Your task to perform on an android device: check android version Image 0: 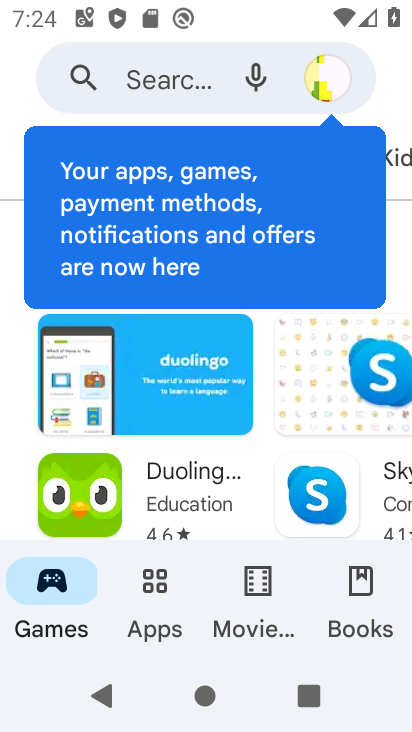
Step 0: press home button
Your task to perform on an android device: check android version Image 1: 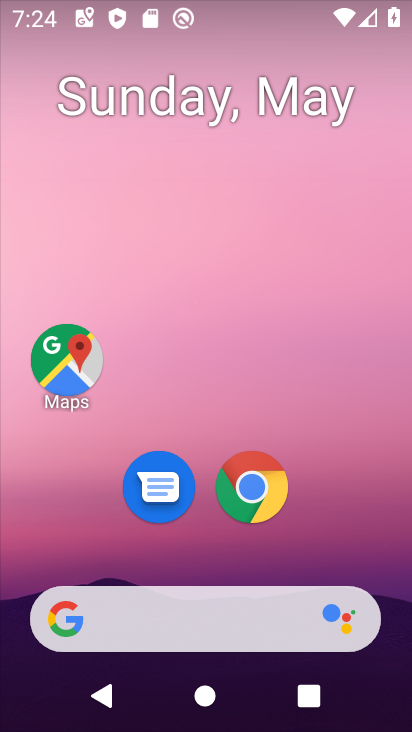
Step 1: drag from (384, 569) to (364, 190)
Your task to perform on an android device: check android version Image 2: 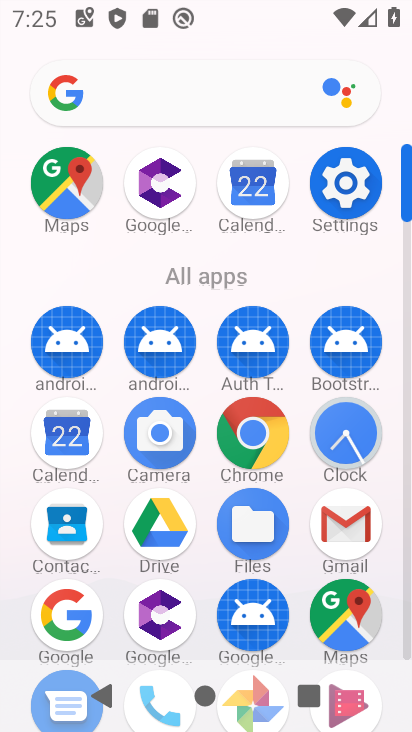
Step 2: click (355, 206)
Your task to perform on an android device: check android version Image 3: 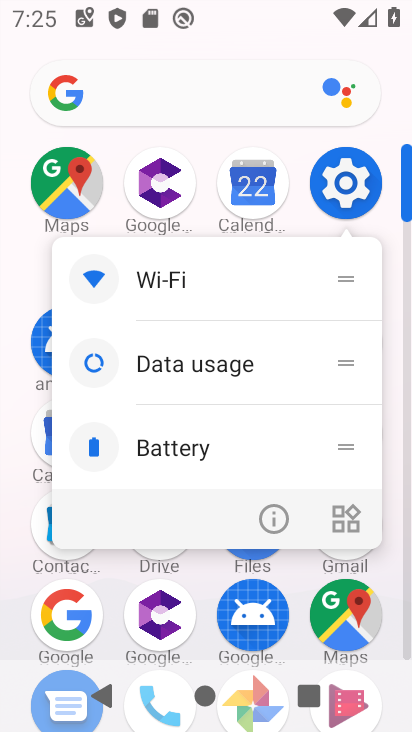
Step 3: click (356, 205)
Your task to perform on an android device: check android version Image 4: 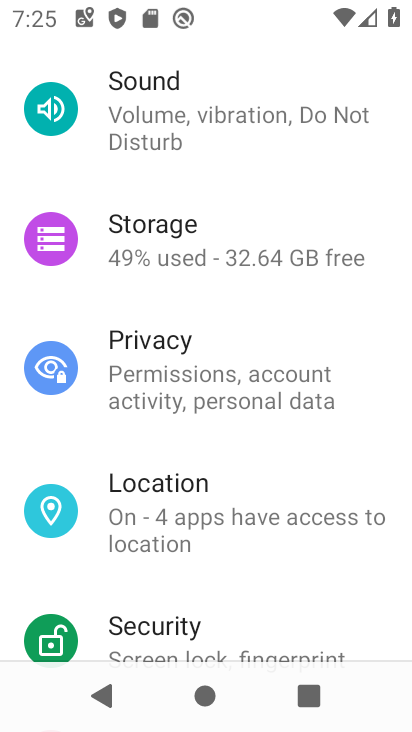
Step 4: drag from (386, 325) to (375, 470)
Your task to perform on an android device: check android version Image 5: 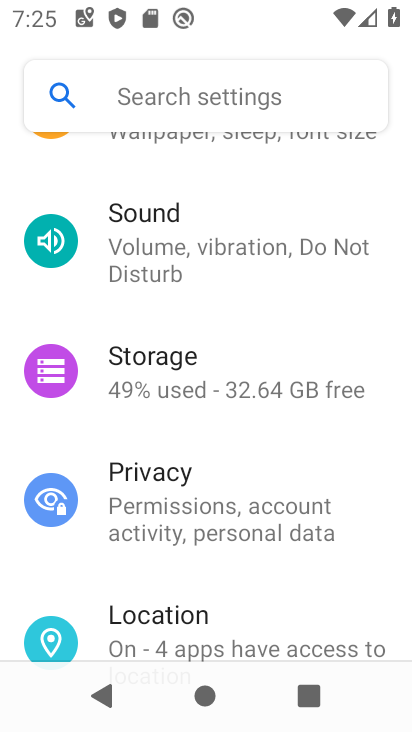
Step 5: drag from (373, 304) to (377, 475)
Your task to perform on an android device: check android version Image 6: 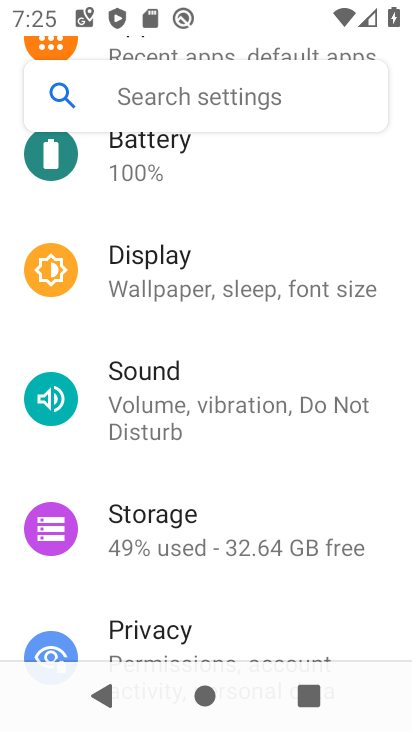
Step 6: drag from (380, 221) to (381, 394)
Your task to perform on an android device: check android version Image 7: 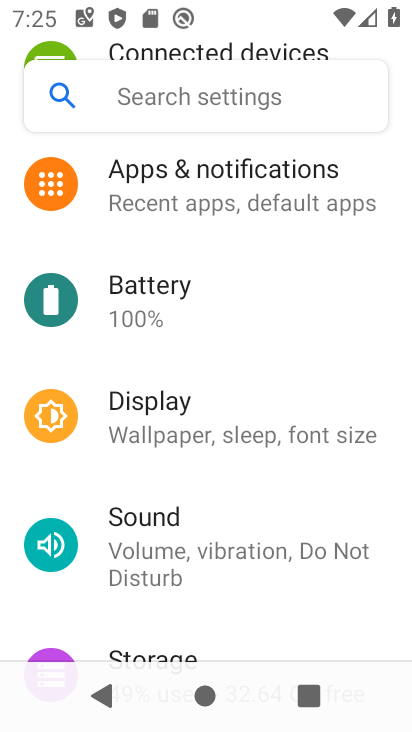
Step 7: drag from (388, 273) to (387, 384)
Your task to perform on an android device: check android version Image 8: 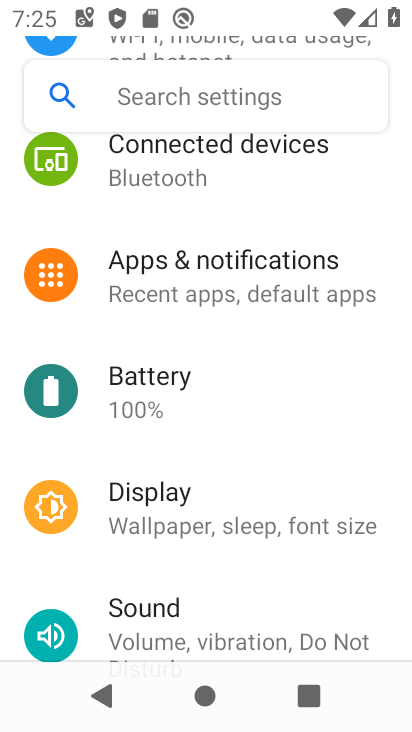
Step 8: drag from (379, 243) to (383, 352)
Your task to perform on an android device: check android version Image 9: 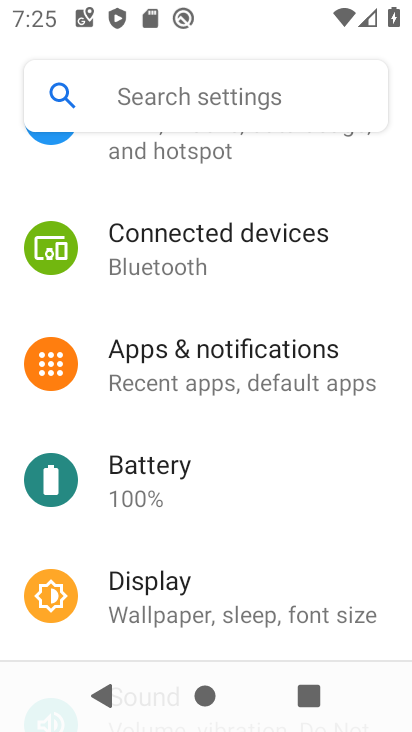
Step 9: drag from (384, 211) to (383, 329)
Your task to perform on an android device: check android version Image 10: 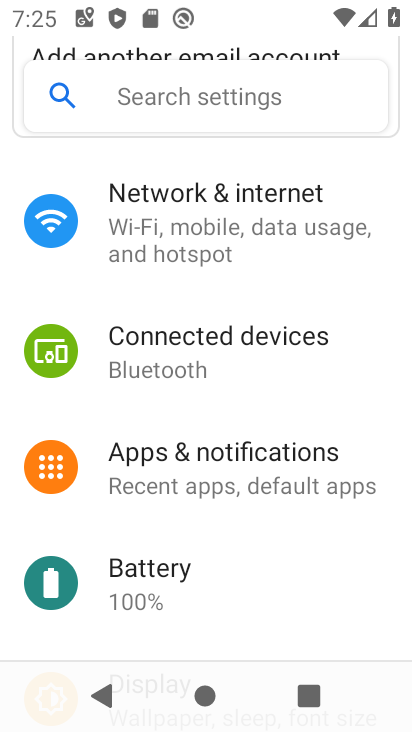
Step 10: drag from (387, 172) to (382, 335)
Your task to perform on an android device: check android version Image 11: 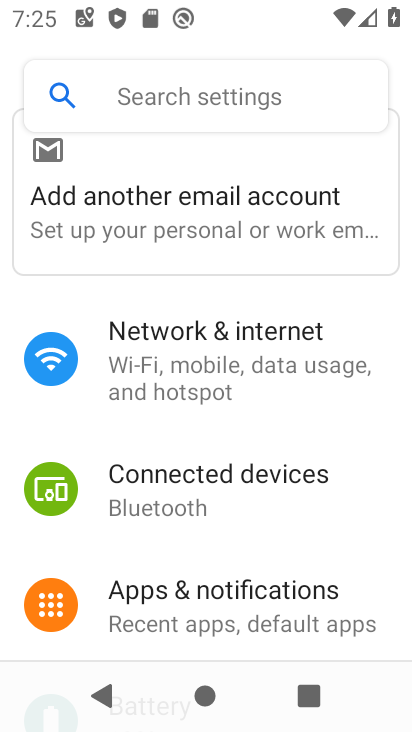
Step 11: drag from (392, 455) to (384, 337)
Your task to perform on an android device: check android version Image 12: 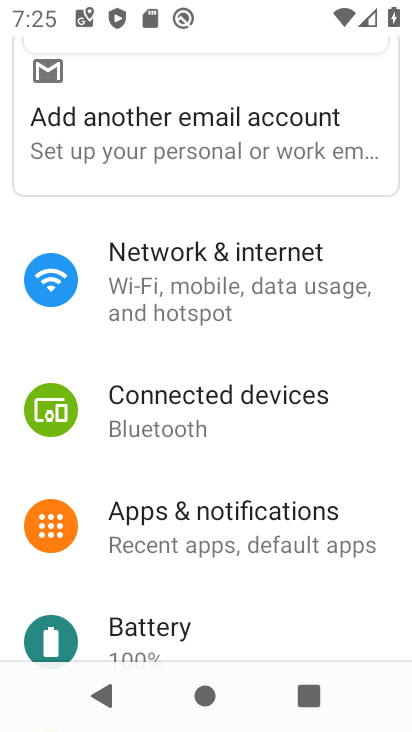
Step 12: drag from (380, 458) to (382, 347)
Your task to perform on an android device: check android version Image 13: 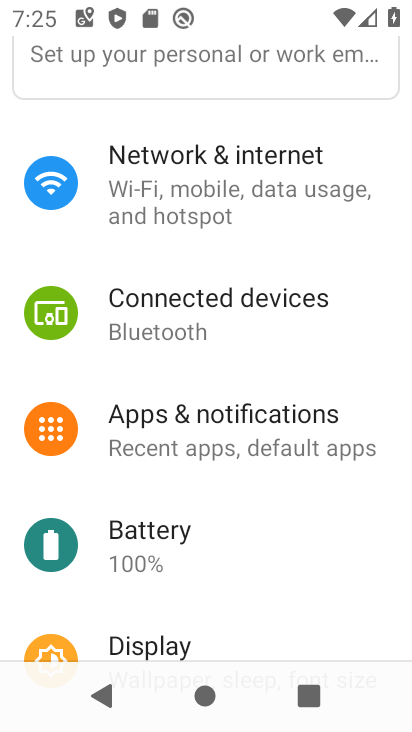
Step 13: drag from (384, 459) to (389, 378)
Your task to perform on an android device: check android version Image 14: 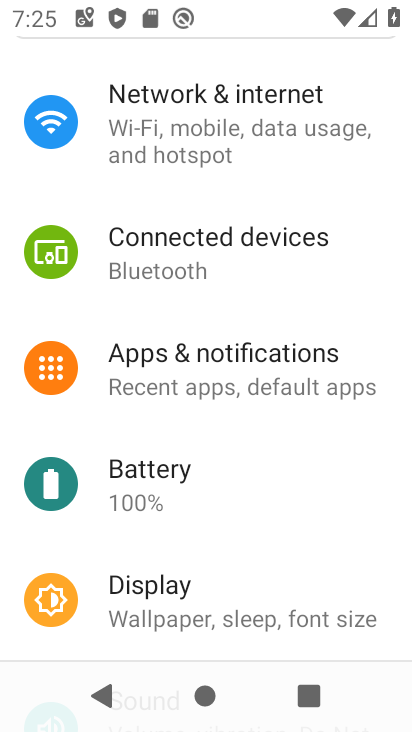
Step 14: drag from (383, 478) to (386, 374)
Your task to perform on an android device: check android version Image 15: 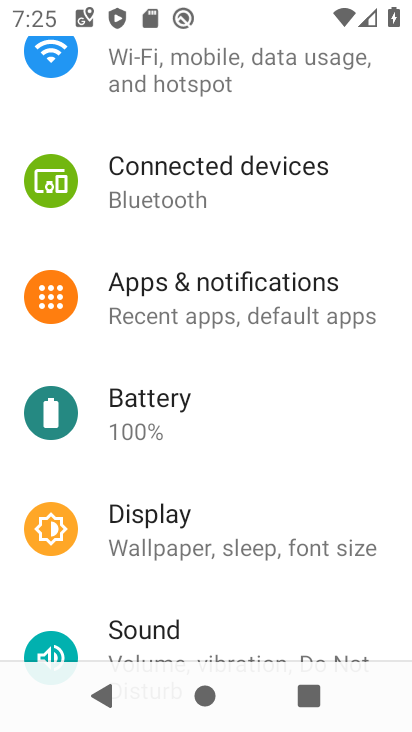
Step 15: drag from (387, 470) to (384, 399)
Your task to perform on an android device: check android version Image 16: 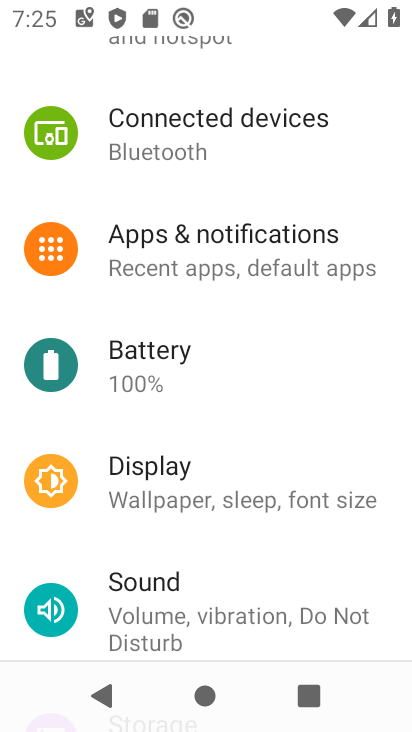
Step 16: drag from (378, 485) to (378, 376)
Your task to perform on an android device: check android version Image 17: 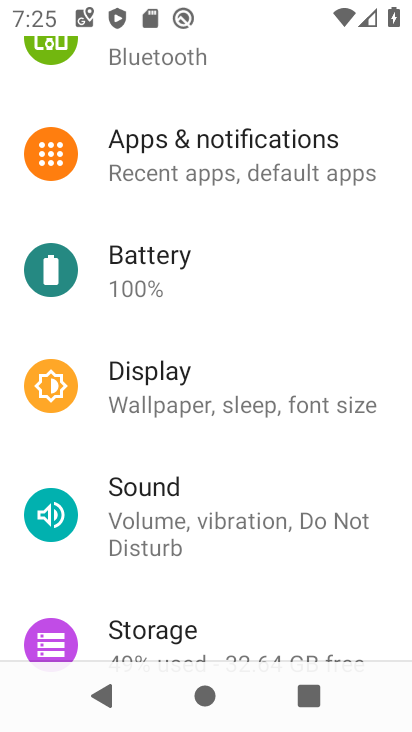
Step 17: drag from (380, 469) to (381, 386)
Your task to perform on an android device: check android version Image 18: 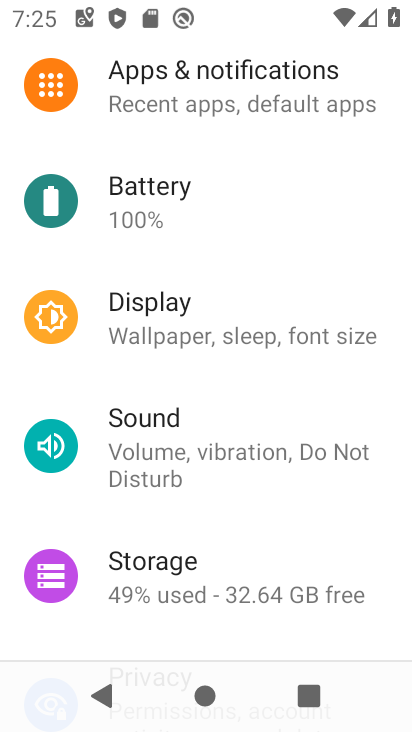
Step 18: drag from (380, 475) to (383, 399)
Your task to perform on an android device: check android version Image 19: 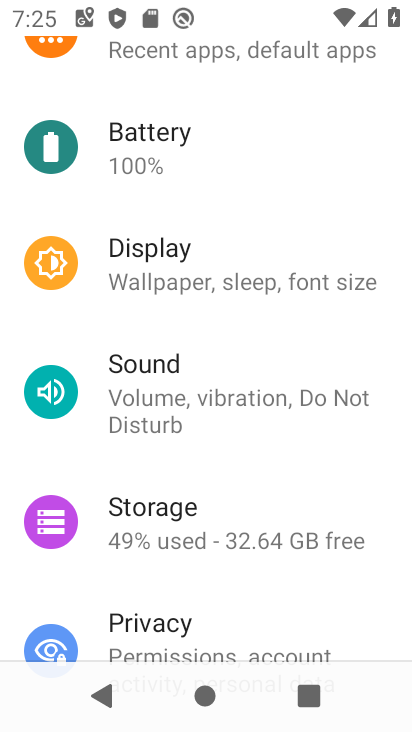
Step 19: drag from (380, 468) to (388, 401)
Your task to perform on an android device: check android version Image 20: 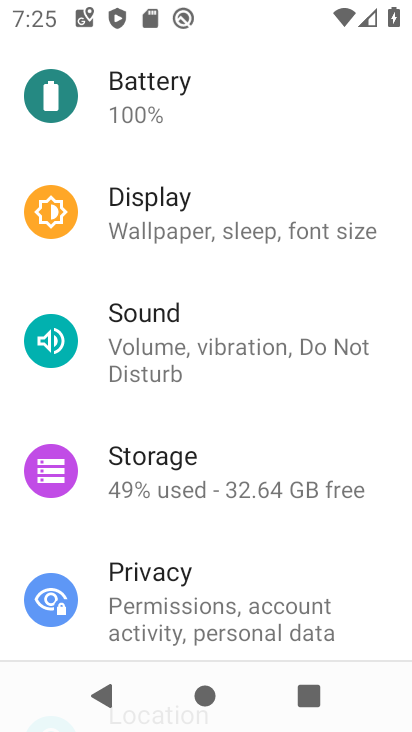
Step 20: drag from (377, 461) to (378, 376)
Your task to perform on an android device: check android version Image 21: 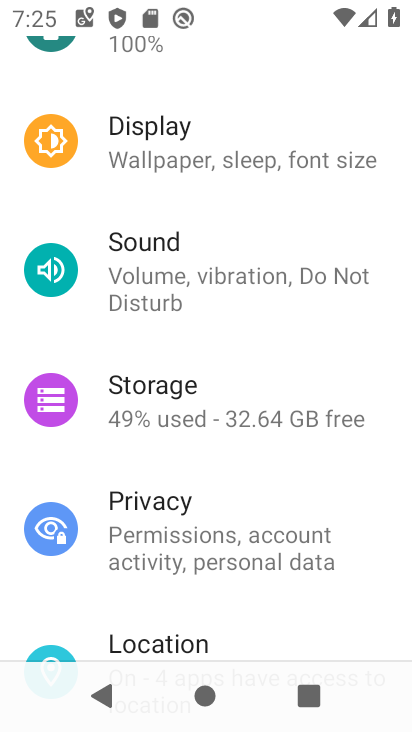
Step 21: drag from (382, 474) to (383, 386)
Your task to perform on an android device: check android version Image 22: 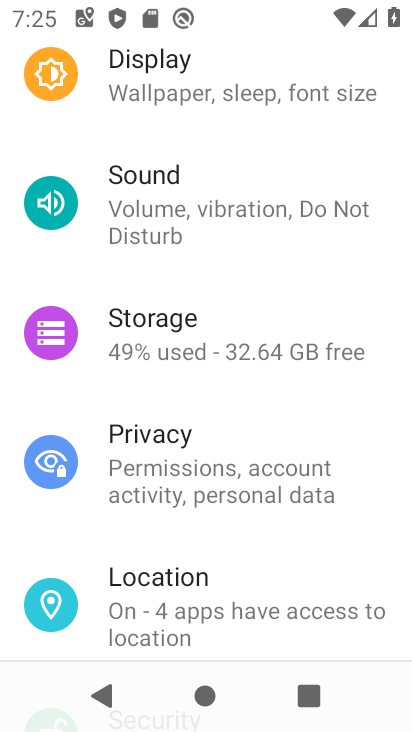
Step 22: drag from (371, 498) to (372, 426)
Your task to perform on an android device: check android version Image 23: 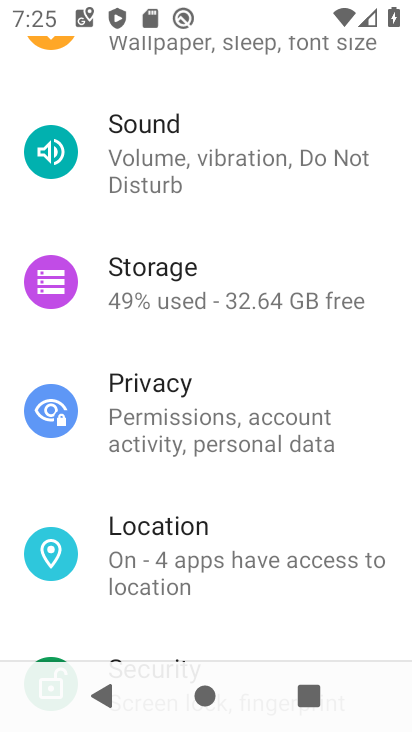
Step 23: drag from (371, 503) to (372, 416)
Your task to perform on an android device: check android version Image 24: 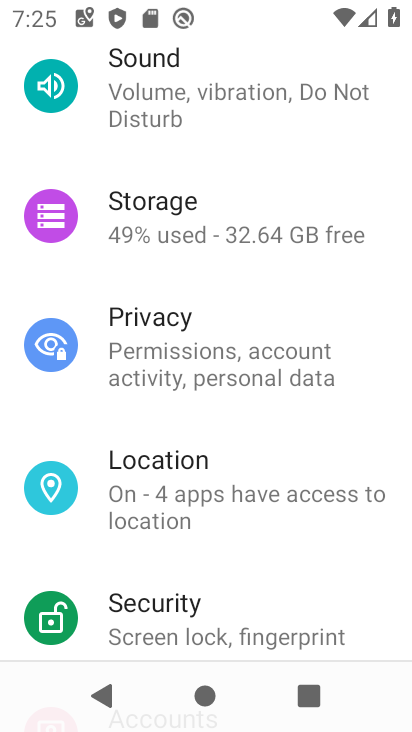
Step 24: drag from (363, 521) to (370, 442)
Your task to perform on an android device: check android version Image 25: 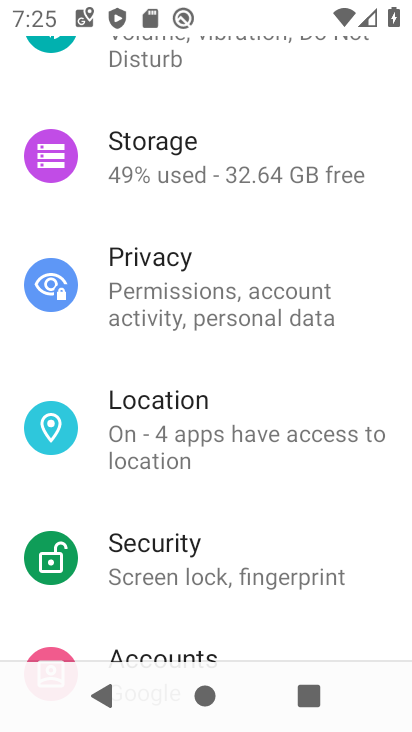
Step 25: drag from (371, 524) to (372, 446)
Your task to perform on an android device: check android version Image 26: 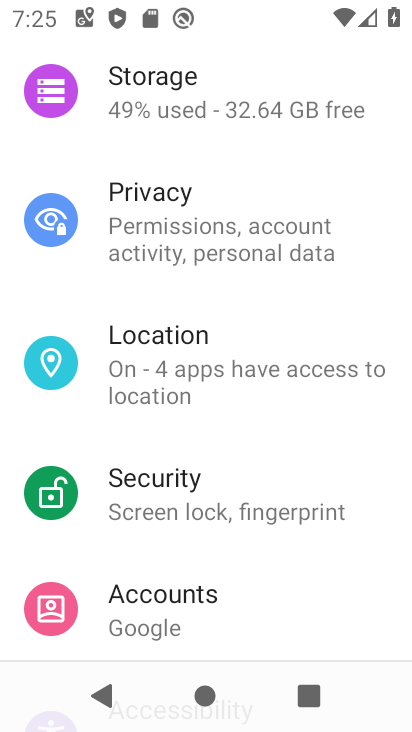
Step 26: drag from (375, 549) to (374, 465)
Your task to perform on an android device: check android version Image 27: 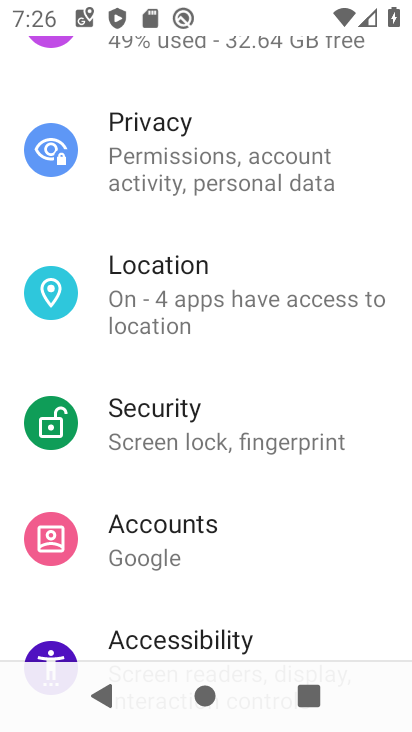
Step 27: drag from (360, 558) to (358, 466)
Your task to perform on an android device: check android version Image 28: 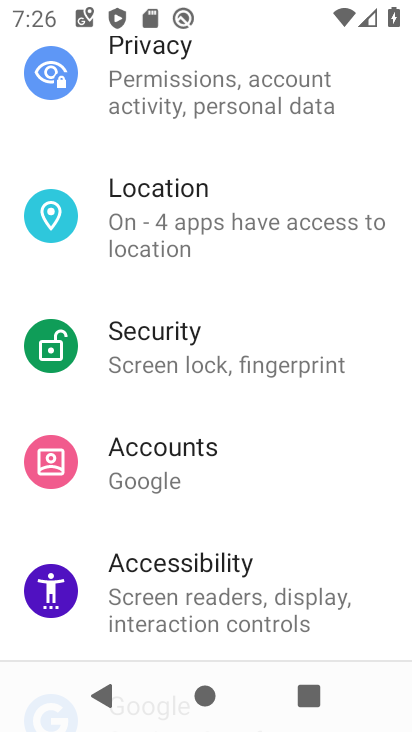
Step 28: drag from (361, 565) to (364, 498)
Your task to perform on an android device: check android version Image 29: 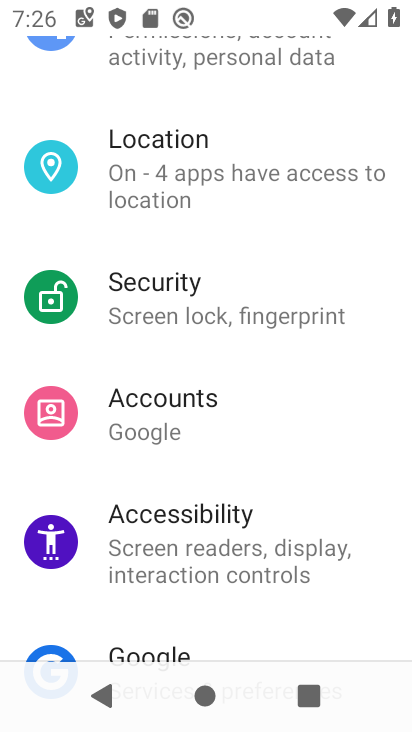
Step 29: drag from (368, 586) to (371, 500)
Your task to perform on an android device: check android version Image 30: 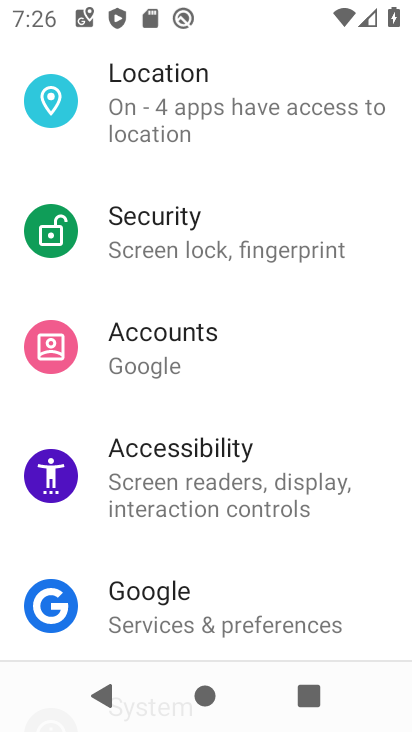
Step 30: drag from (359, 596) to (362, 493)
Your task to perform on an android device: check android version Image 31: 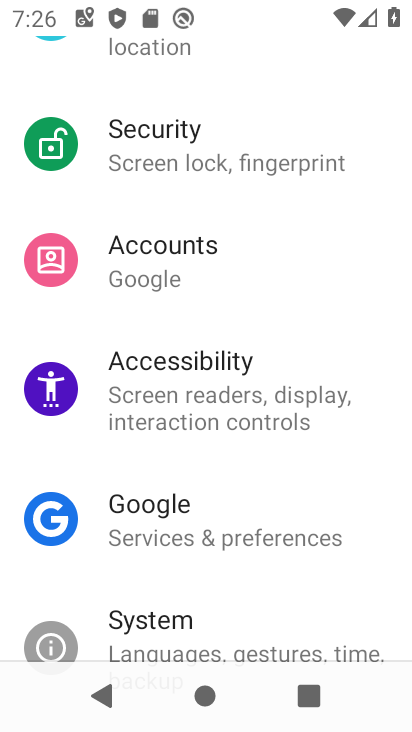
Step 31: drag from (354, 594) to (361, 428)
Your task to perform on an android device: check android version Image 32: 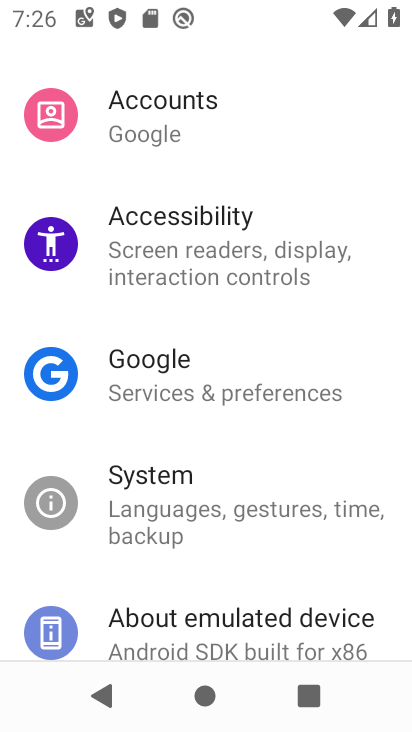
Step 32: click (334, 520)
Your task to perform on an android device: check android version Image 33: 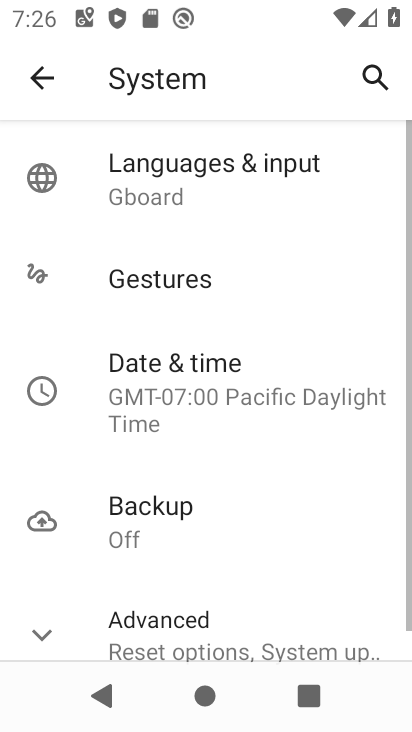
Step 33: drag from (354, 563) to (360, 413)
Your task to perform on an android device: check android version Image 34: 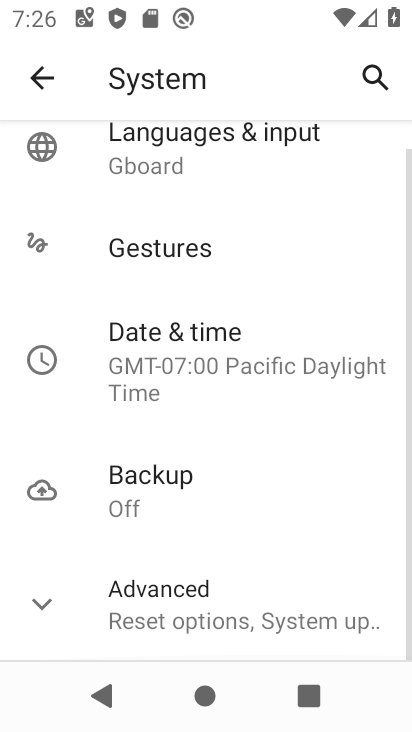
Step 34: click (360, 611)
Your task to perform on an android device: check android version Image 35: 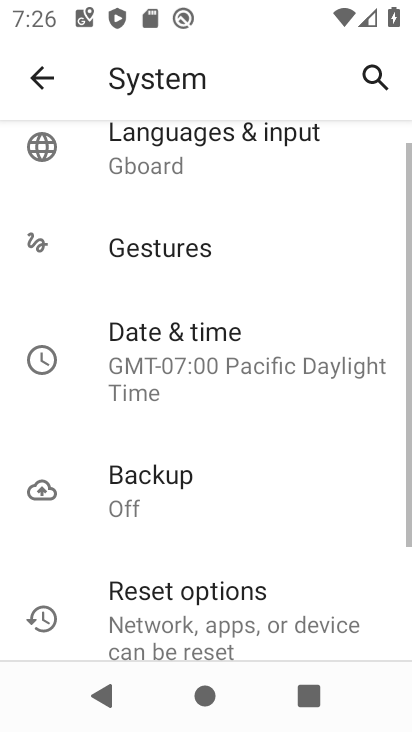
Step 35: drag from (360, 611) to (359, 408)
Your task to perform on an android device: check android version Image 36: 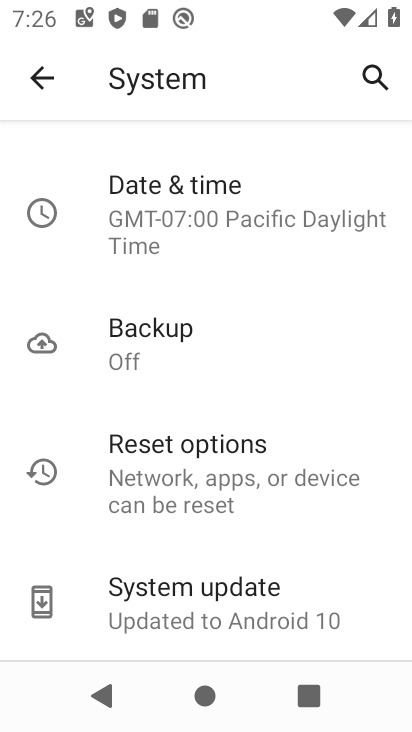
Step 36: click (334, 605)
Your task to perform on an android device: check android version Image 37: 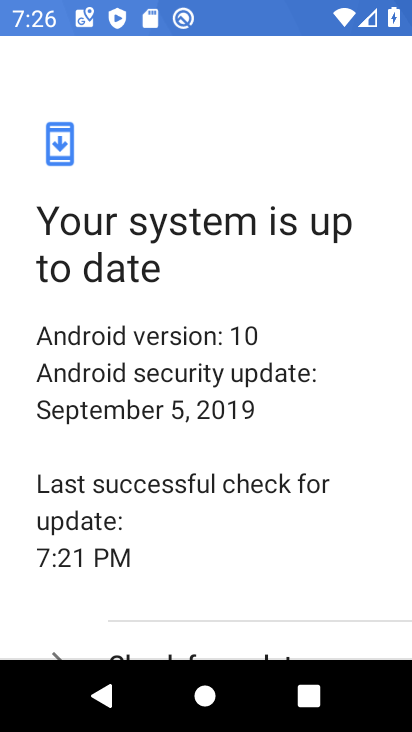
Step 37: task complete